Your task to perform on an android device: change the clock display to show seconds Image 0: 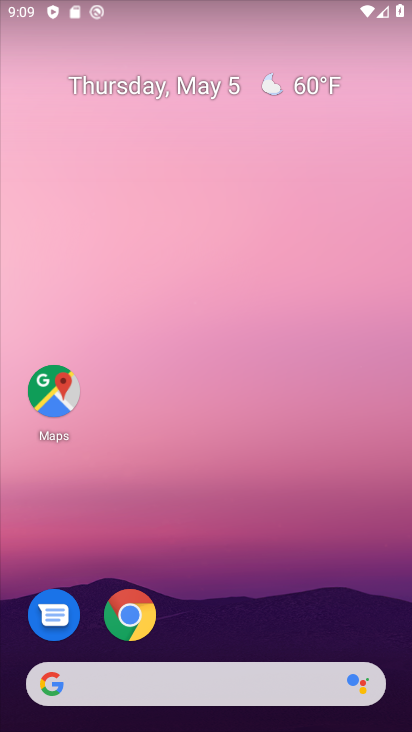
Step 0: drag from (278, 595) to (318, 142)
Your task to perform on an android device: change the clock display to show seconds Image 1: 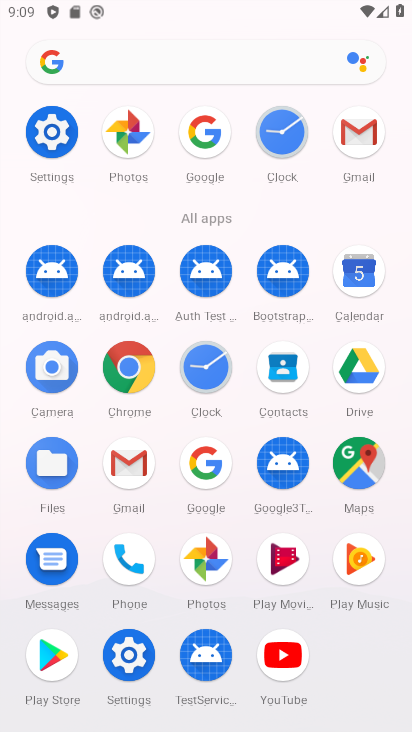
Step 1: click (281, 135)
Your task to perform on an android device: change the clock display to show seconds Image 2: 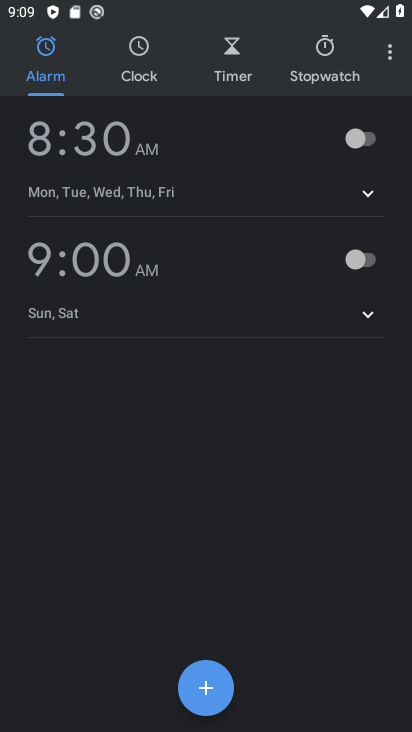
Step 2: click (385, 53)
Your task to perform on an android device: change the clock display to show seconds Image 3: 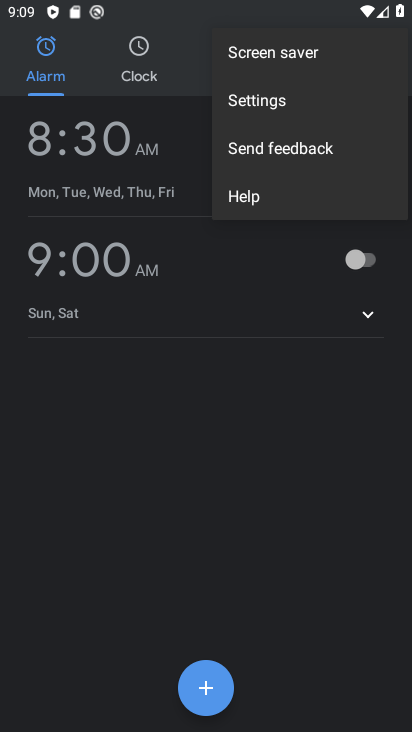
Step 3: click (257, 103)
Your task to perform on an android device: change the clock display to show seconds Image 4: 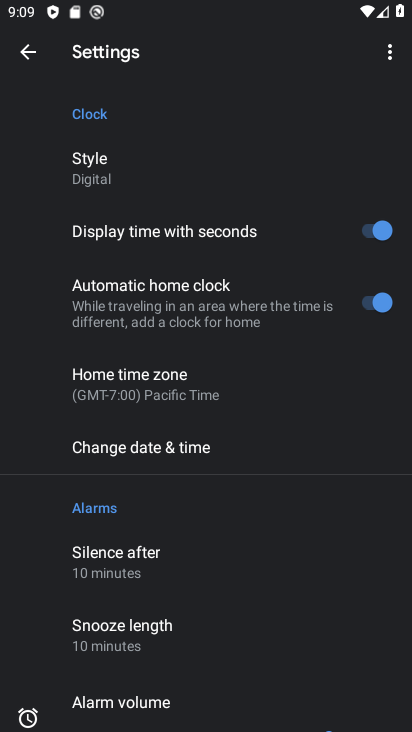
Step 4: click (369, 227)
Your task to perform on an android device: change the clock display to show seconds Image 5: 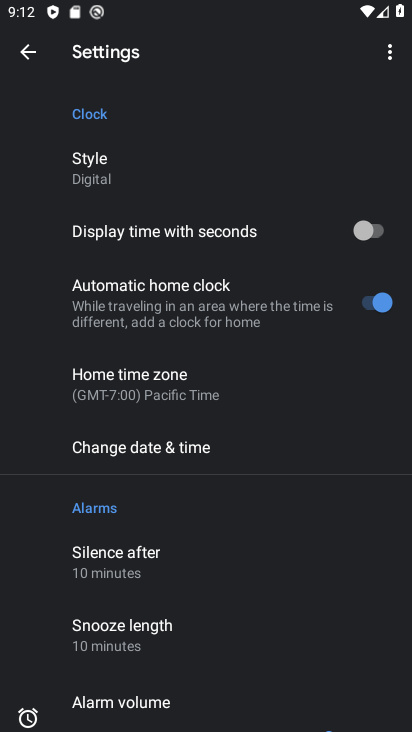
Step 5: task complete